Your task to perform on an android device: Open settings on Google Maps Image 0: 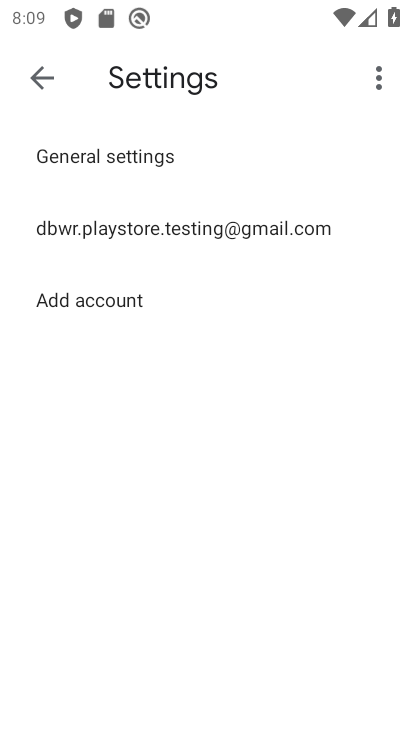
Step 0: press home button
Your task to perform on an android device: Open settings on Google Maps Image 1: 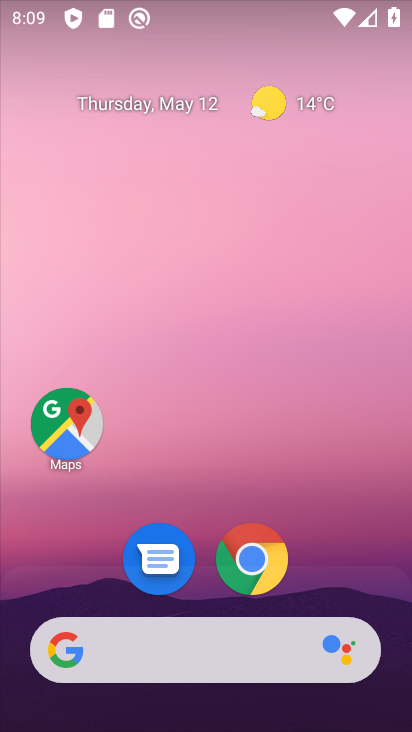
Step 1: click (55, 428)
Your task to perform on an android device: Open settings on Google Maps Image 2: 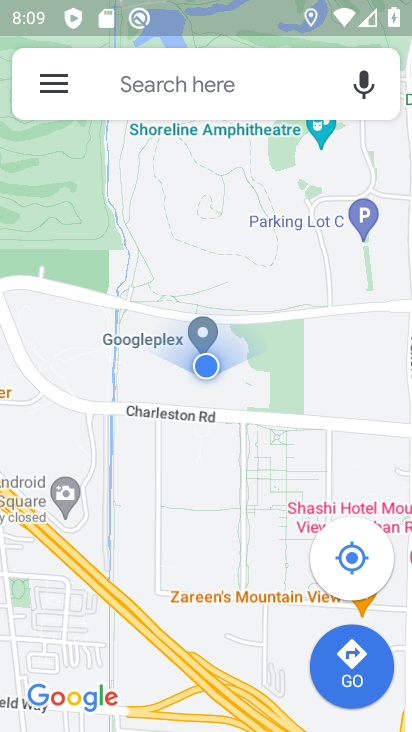
Step 2: task complete